Your task to perform on an android device: Search for pizza restaurants on Maps Image 0: 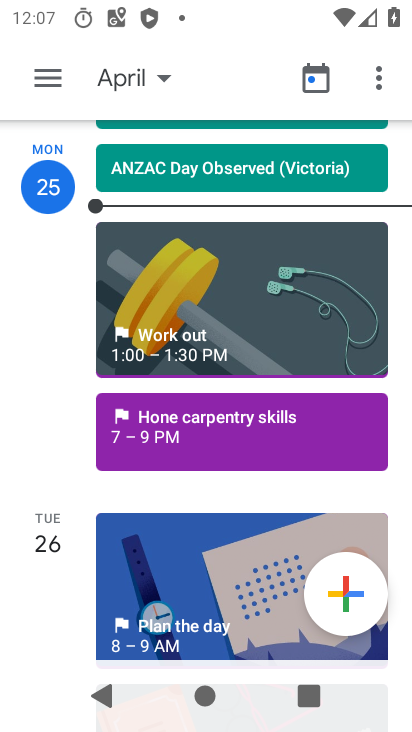
Step 0: press home button
Your task to perform on an android device: Search for pizza restaurants on Maps Image 1: 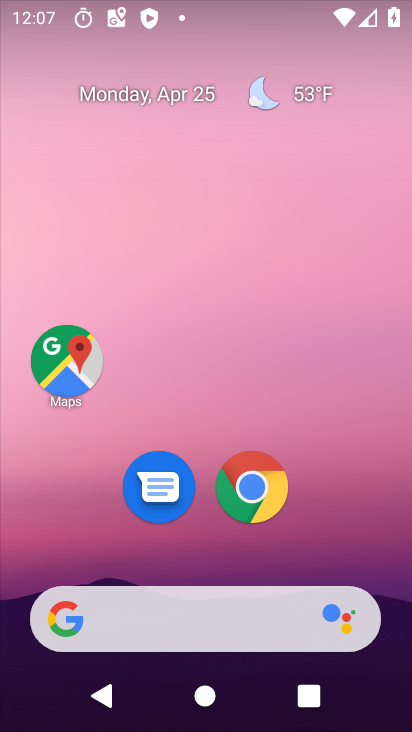
Step 1: click (74, 353)
Your task to perform on an android device: Search for pizza restaurants on Maps Image 2: 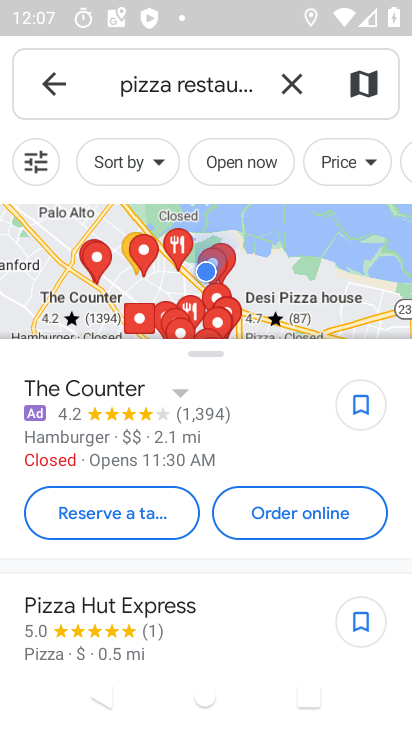
Step 2: task complete